Your task to perform on an android device: Search for a new foundation on Sephora Image 0: 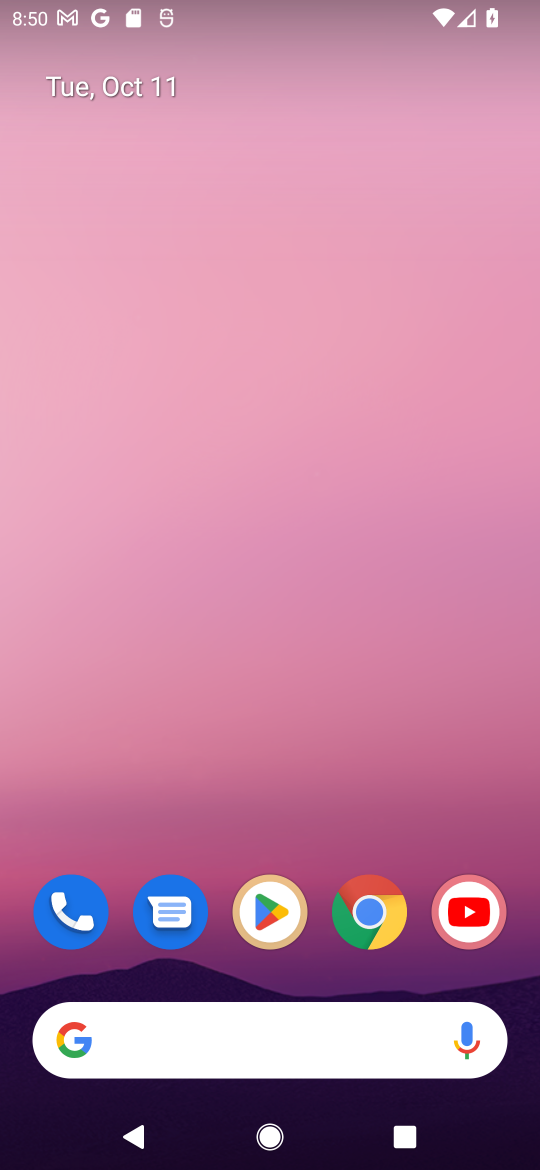
Step 0: drag from (521, 998) to (468, 223)
Your task to perform on an android device: Search for a new foundation on Sephora Image 1: 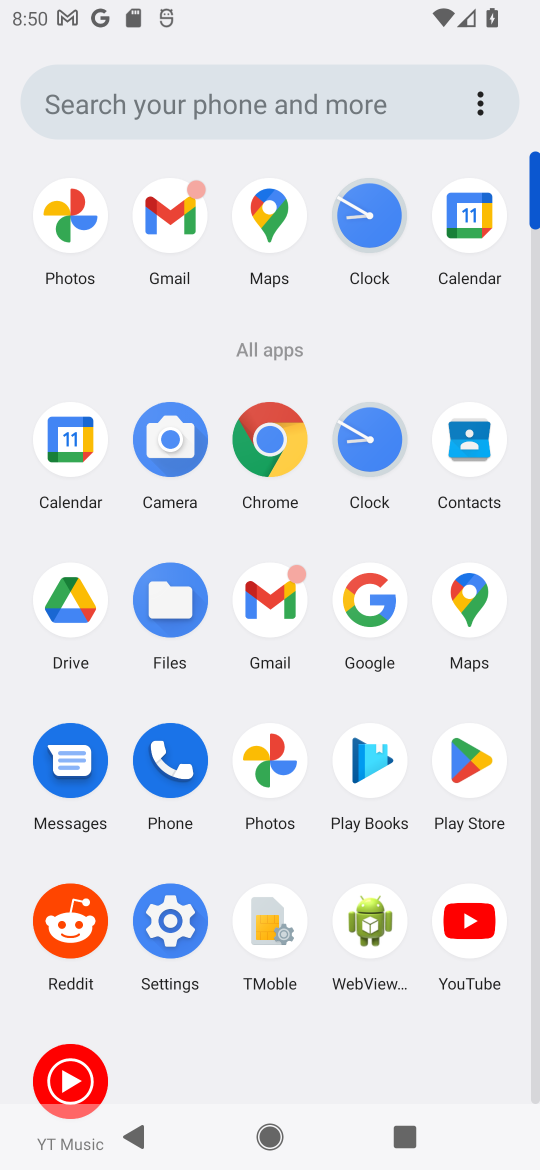
Step 1: click (269, 434)
Your task to perform on an android device: Search for a new foundation on Sephora Image 2: 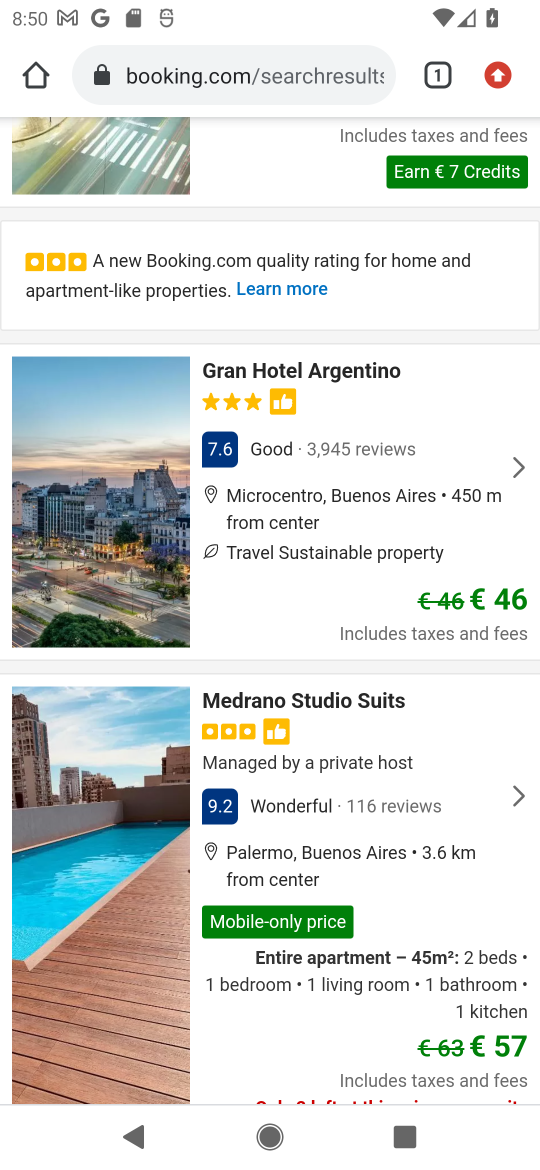
Step 2: click (218, 54)
Your task to perform on an android device: Search for a new foundation on Sephora Image 3: 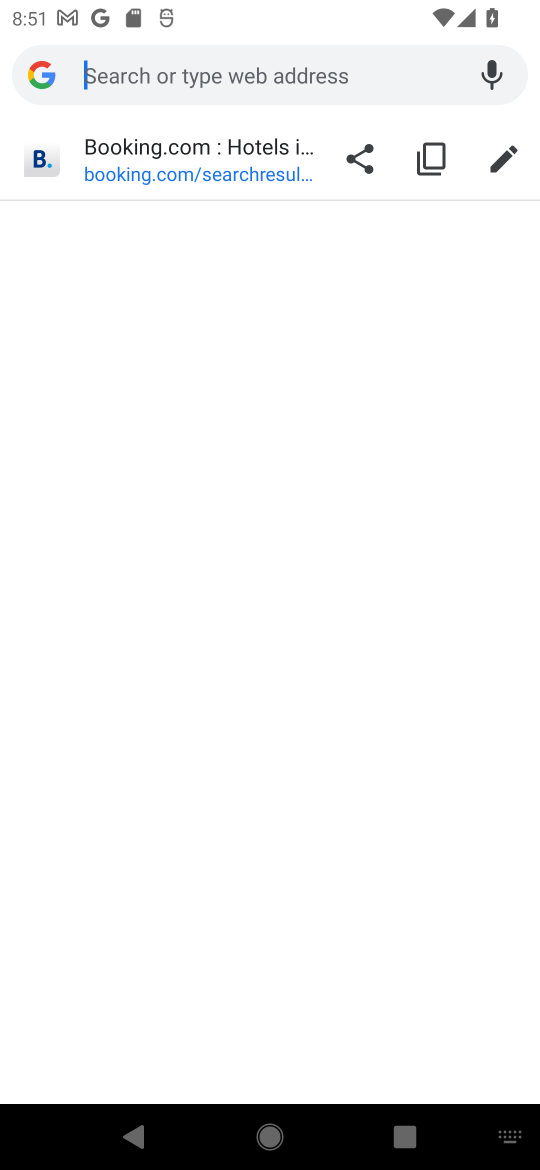
Step 3: type "sephora"
Your task to perform on an android device: Search for a new foundation on Sephora Image 4: 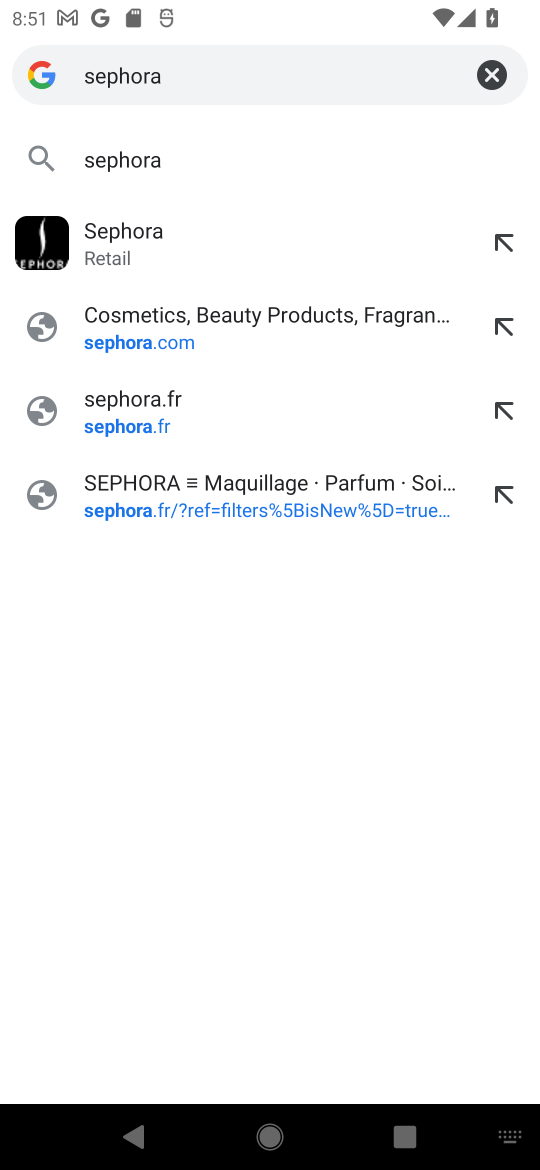
Step 4: click (115, 232)
Your task to perform on an android device: Search for a new foundation on Sephora Image 5: 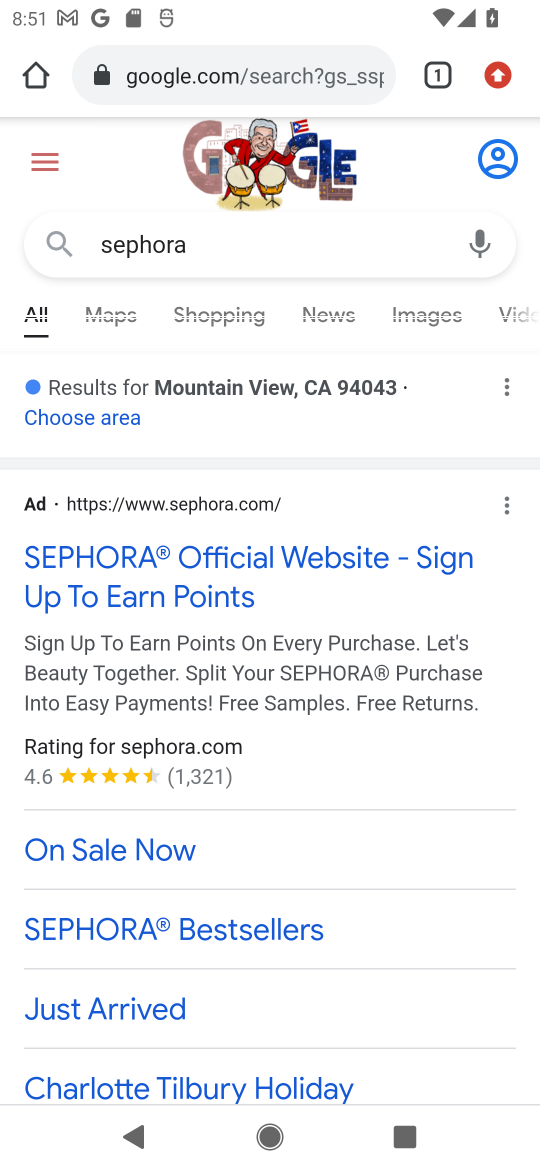
Step 5: click (120, 563)
Your task to perform on an android device: Search for a new foundation on Sephora Image 6: 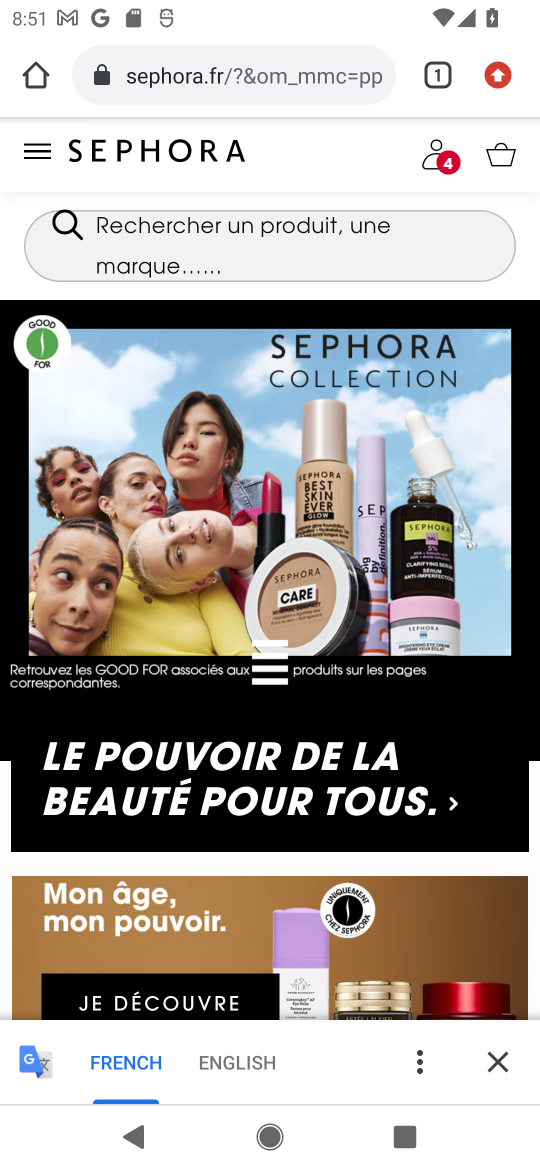
Step 6: task complete